Your task to perform on an android device: uninstall "Airtel Thanks" Image 0: 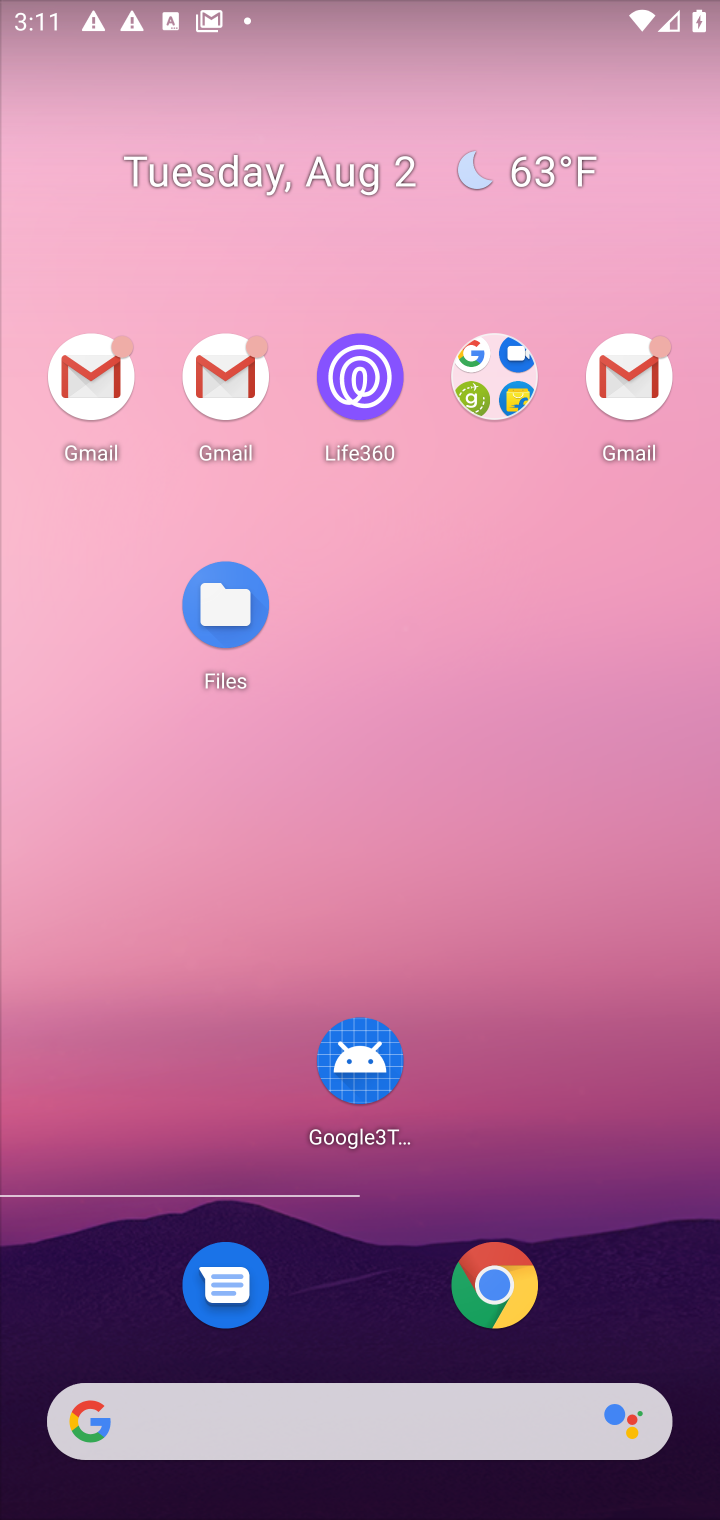
Step 0: drag from (539, 1101) to (559, 5)
Your task to perform on an android device: uninstall "Airtel Thanks" Image 1: 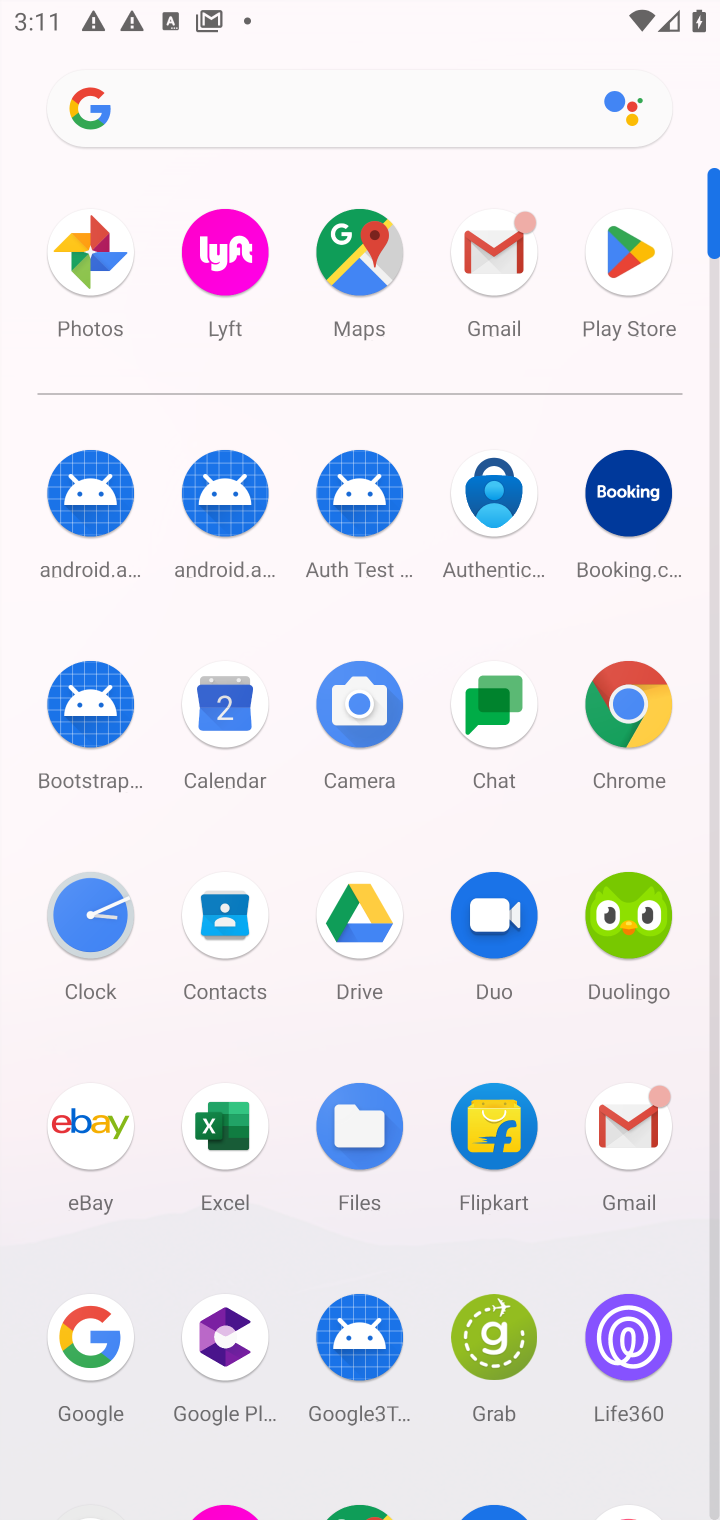
Step 1: drag from (413, 1235) to (449, 529)
Your task to perform on an android device: uninstall "Airtel Thanks" Image 2: 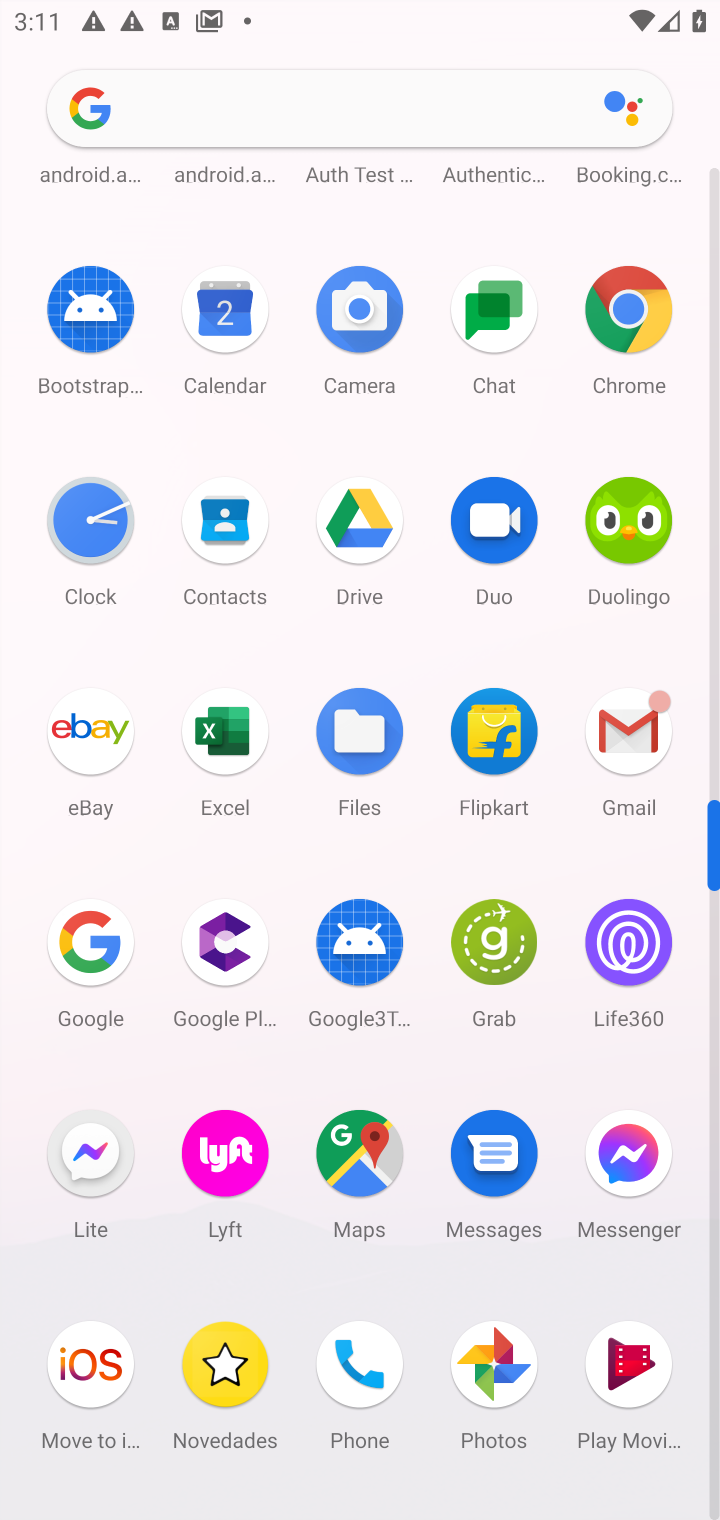
Step 2: drag from (426, 1270) to (429, 765)
Your task to perform on an android device: uninstall "Airtel Thanks" Image 3: 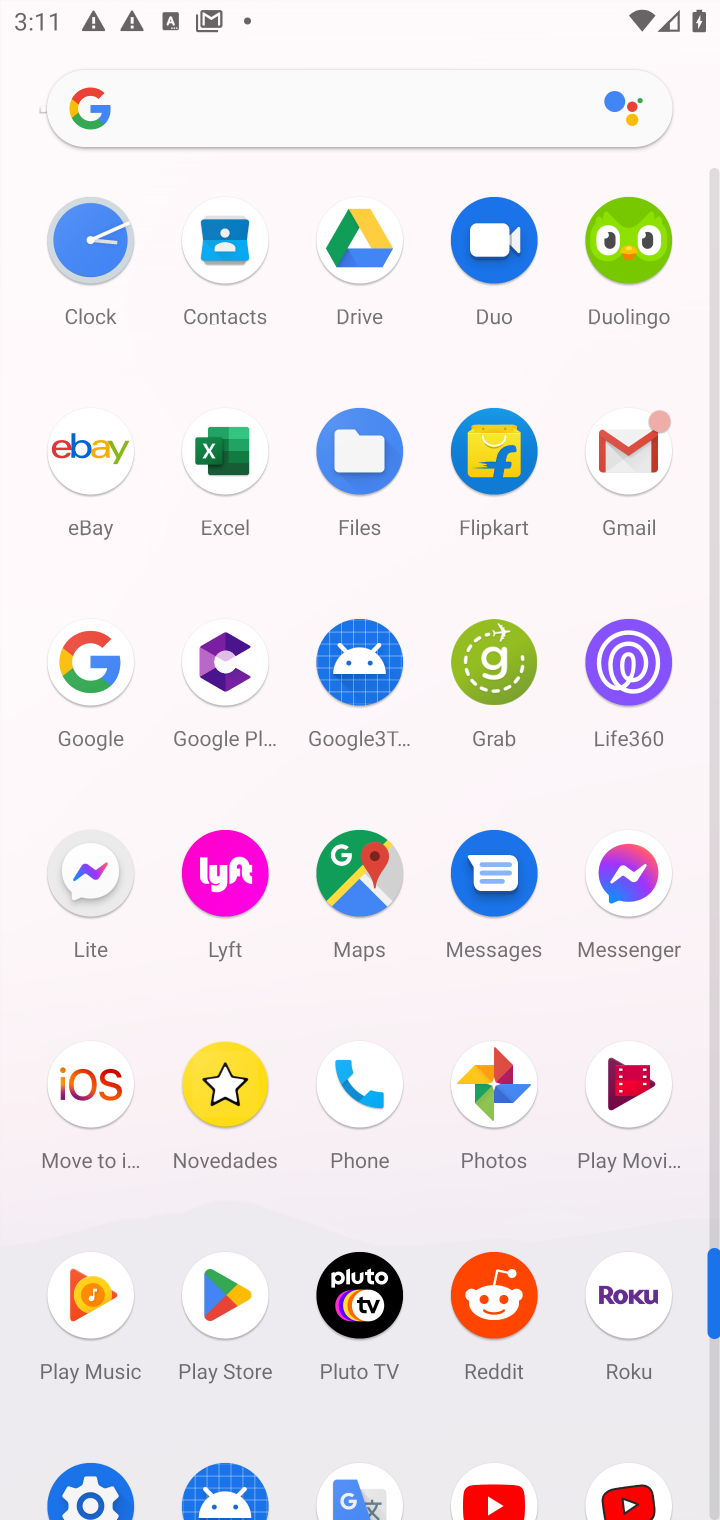
Step 3: click (241, 1290)
Your task to perform on an android device: uninstall "Airtel Thanks" Image 4: 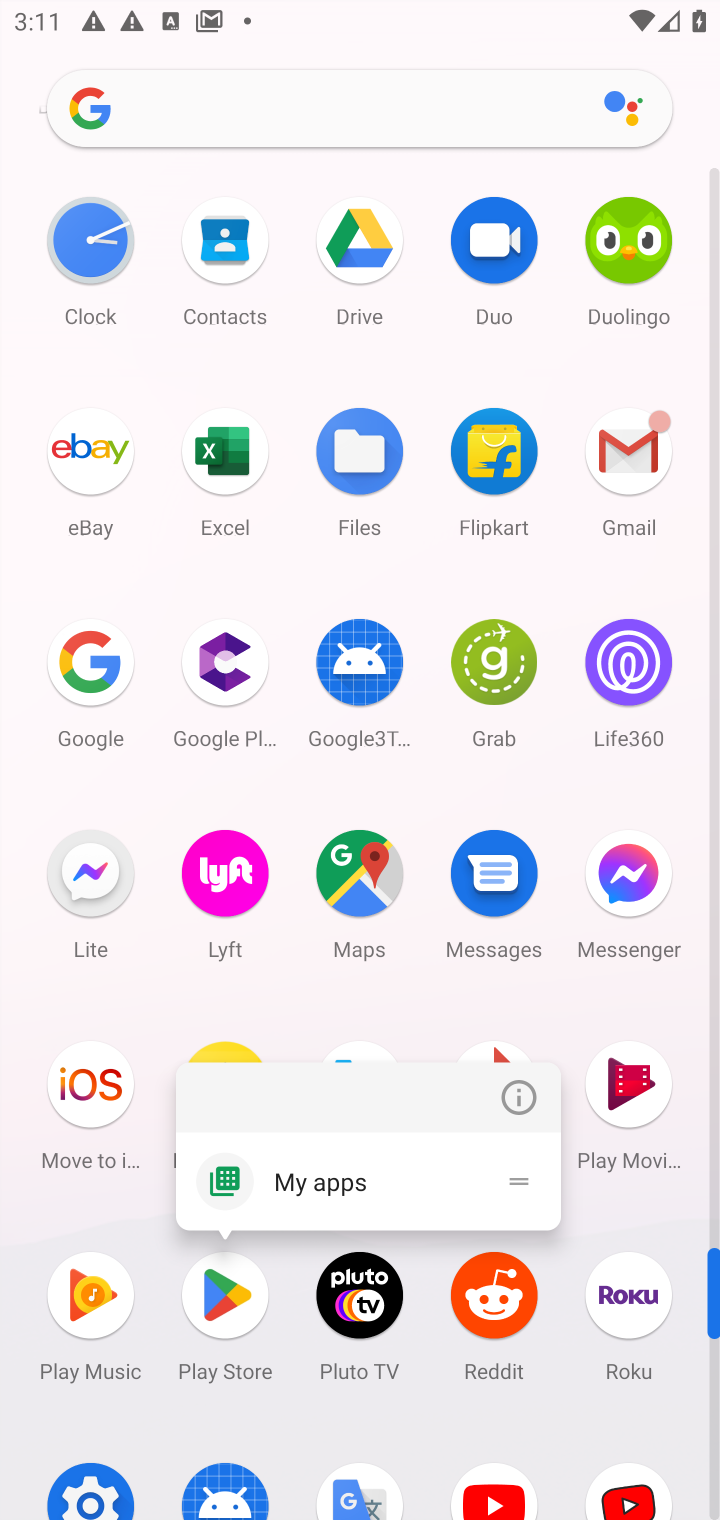
Step 4: click (241, 1290)
Your task to perform on an android device: uninstall "Airtel Thanks" Image 5: 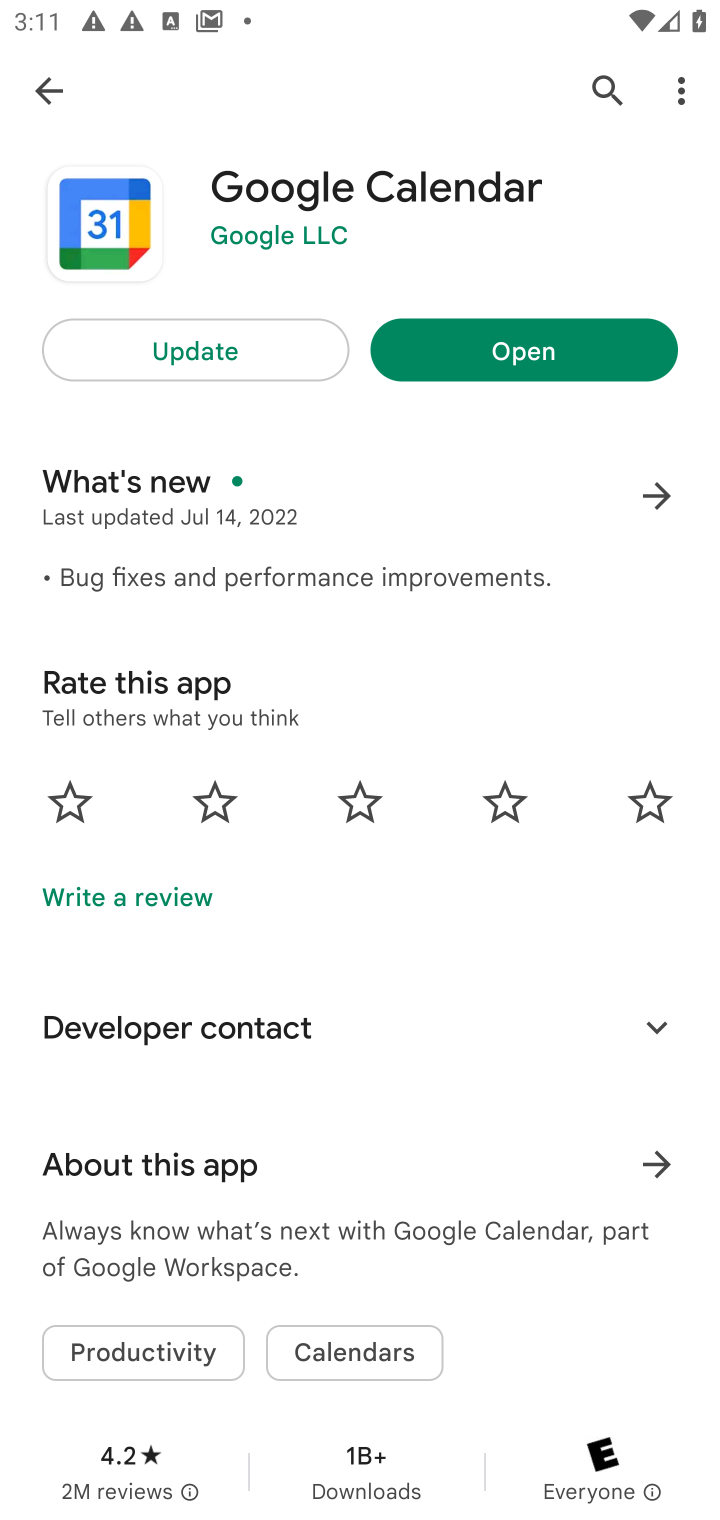
Step 5: click (609, 83)
Your task to perform on an android device: uninstall "Airtel Thanks" Image 6: 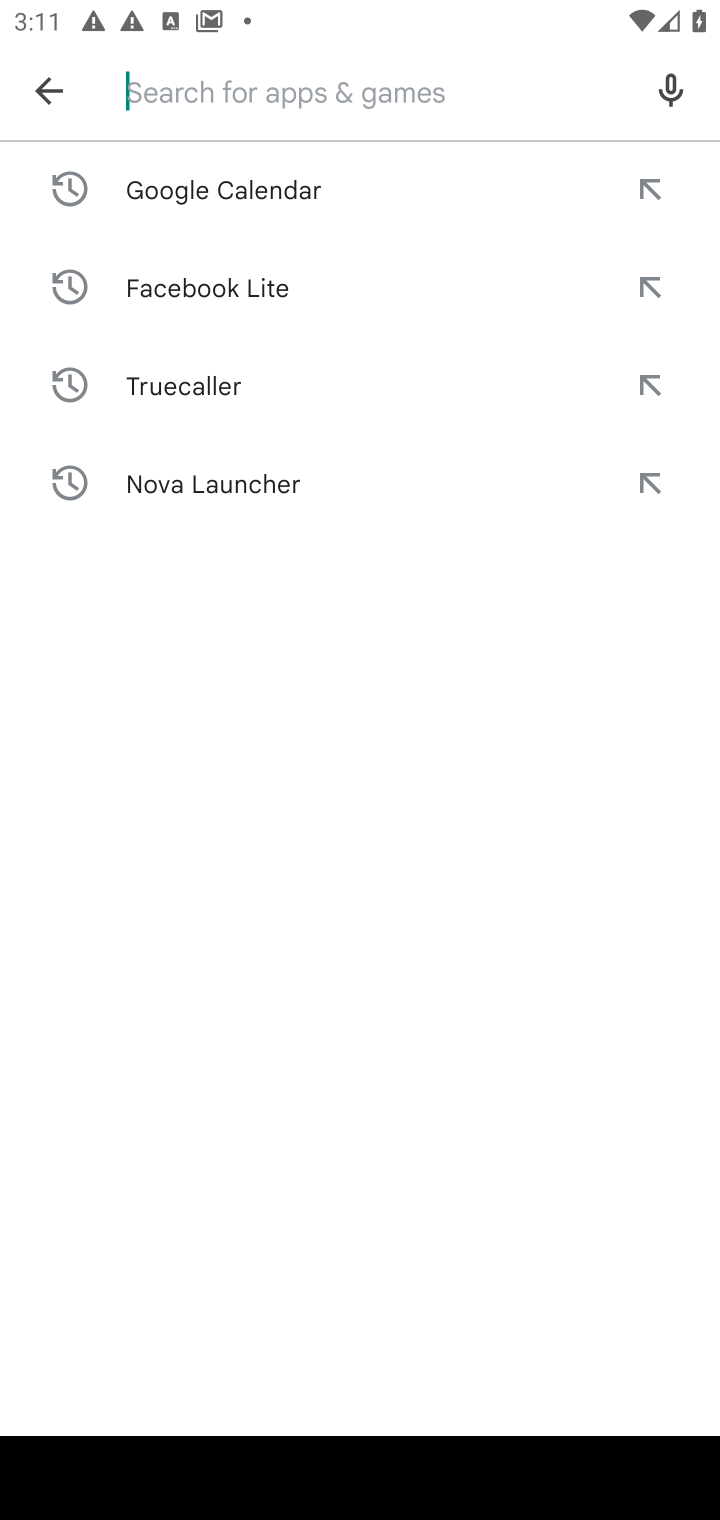
Step 6: type "Airtel Thanks"
Your task to perform on an android device: uninstall "Airtel Thanks" Image 7: 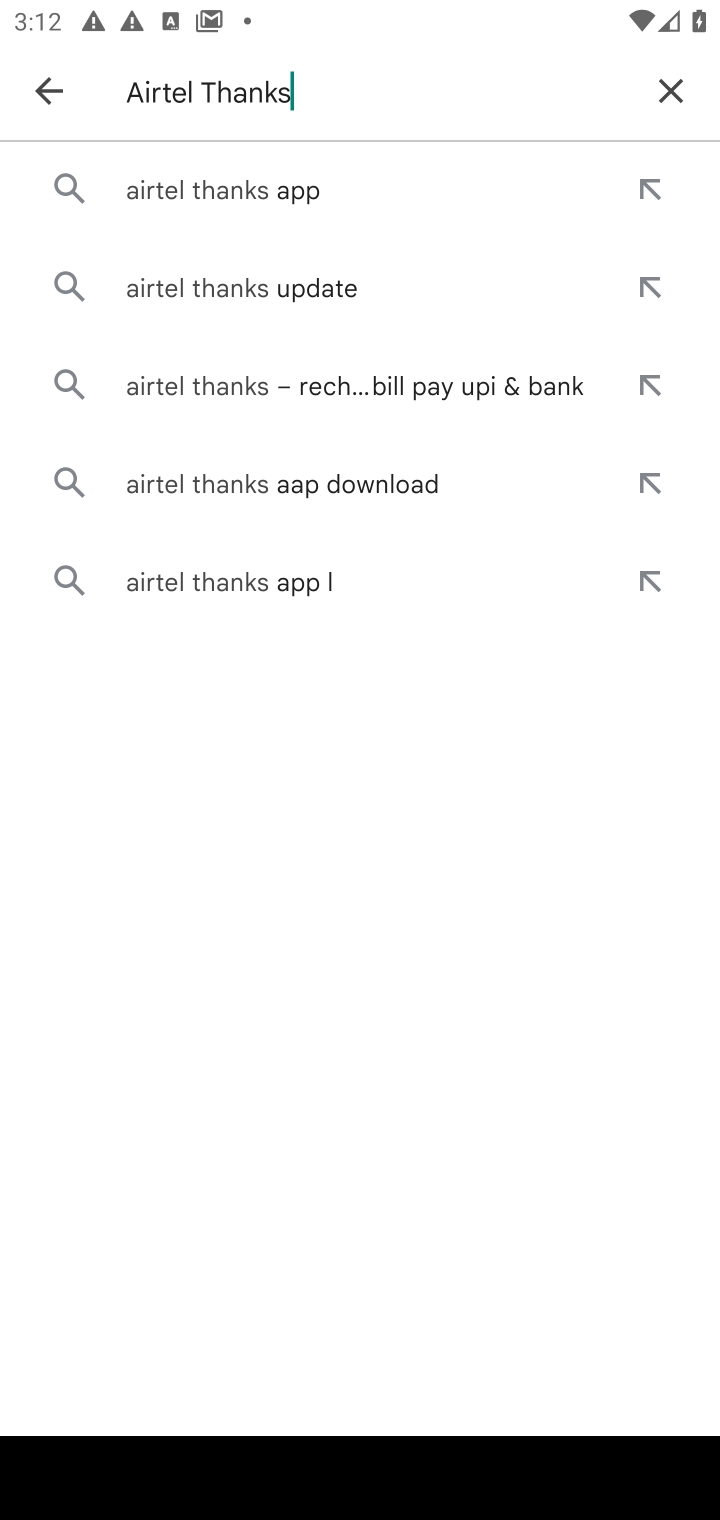
Step 7: press enter
Your task to perform on an android device: uninstall "Airtel Thanks" Image 8: 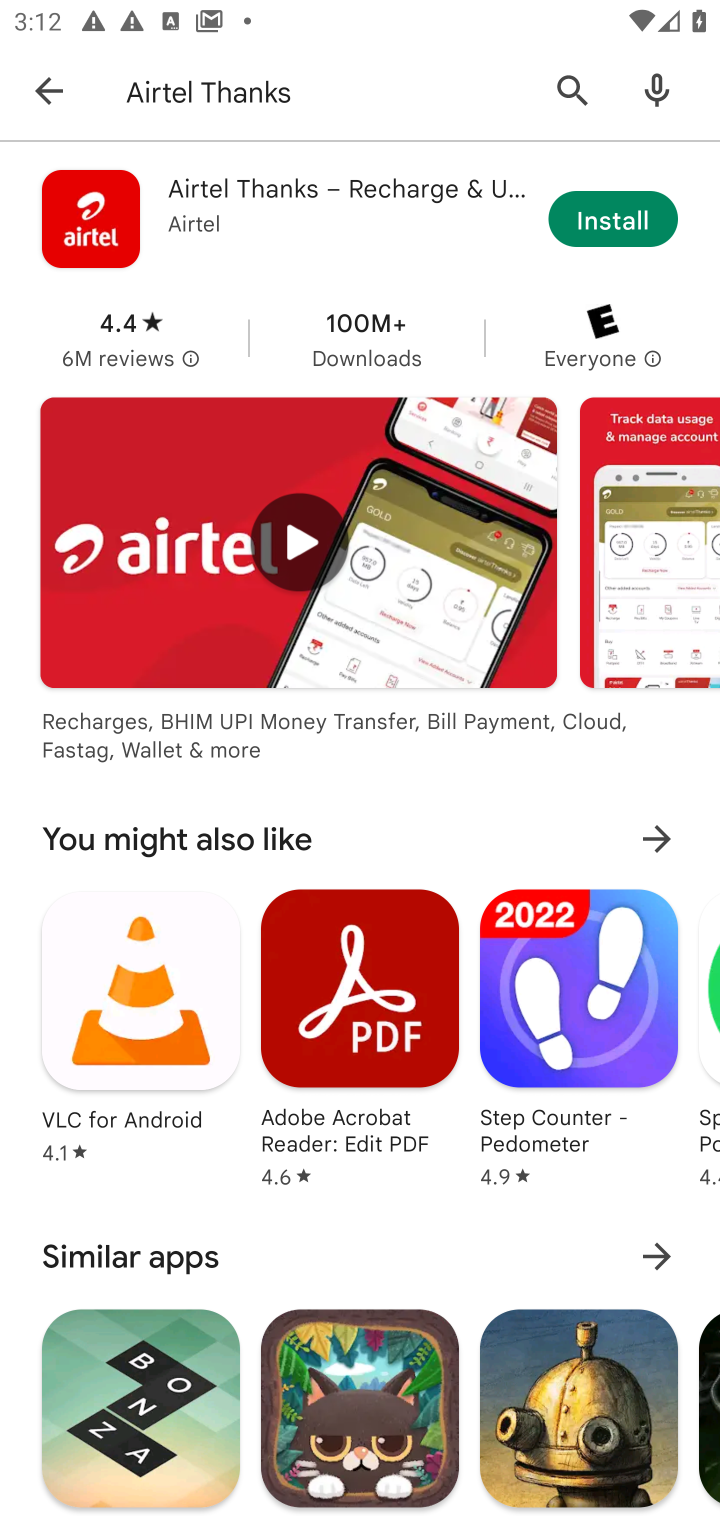
Step 8: click (390, 178)
Your task to perform on an android device: uninstall "Airtel Thanks" Image 9: 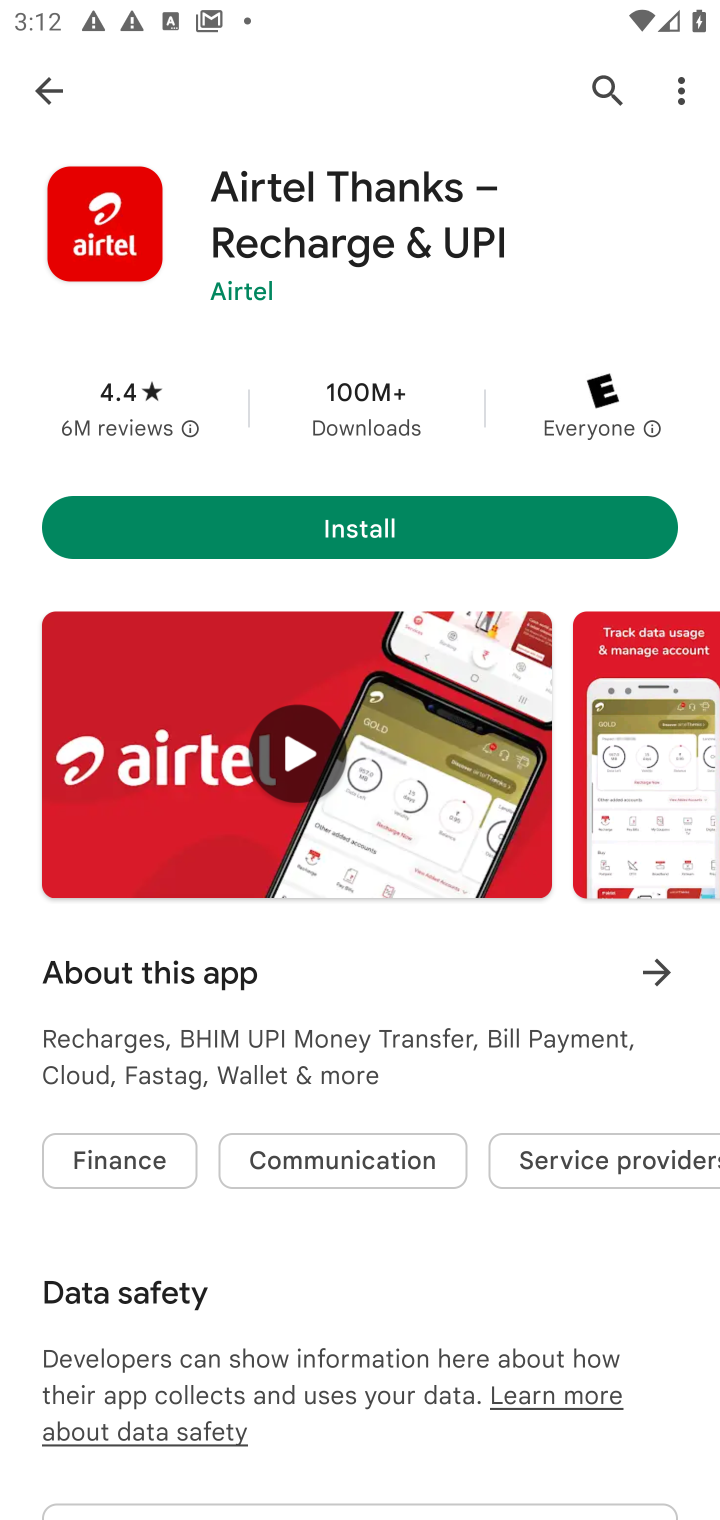
Step 9: task complete